Your task to perform on an android device: Play the last video I watched on Youtube Image 0: 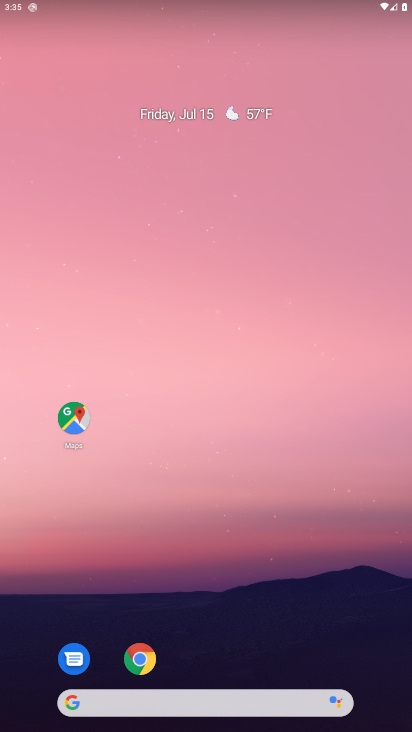
Step 0: drag from (14, 697) to (168, 130)
Your task to perform on an android device: Play the last video I watched on Youtube Image 1: 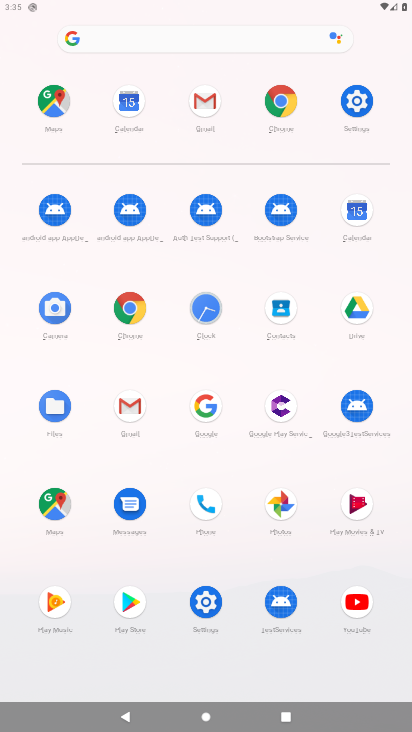
Step 1: click (354, 600)
Your task to perform on an android device: Play the last video I watched on Youtube Image 2: 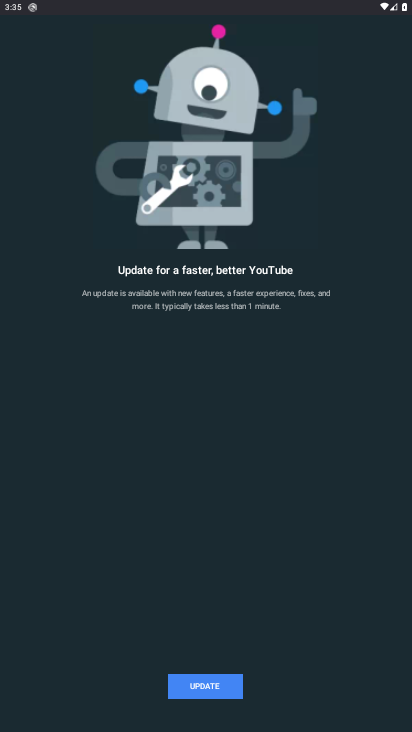
Step 2: click (195, 676)
Your task to perform on an android device: Play the last video I watched on Youtube Image 3: 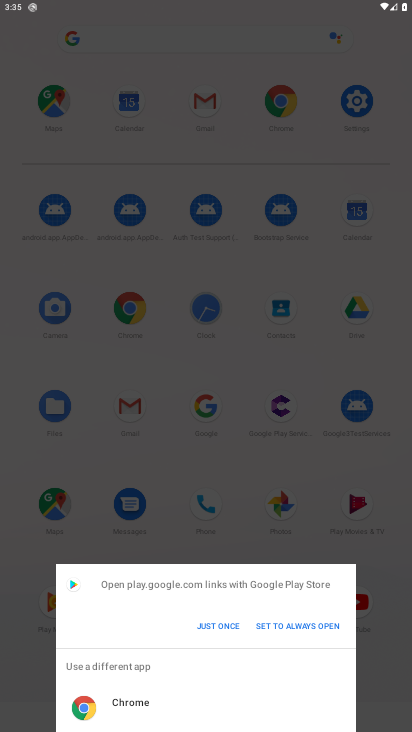
Step 3: click (227, 624)
Your task to perform on an android device: Play the last video I watched on Youtube Image 4: 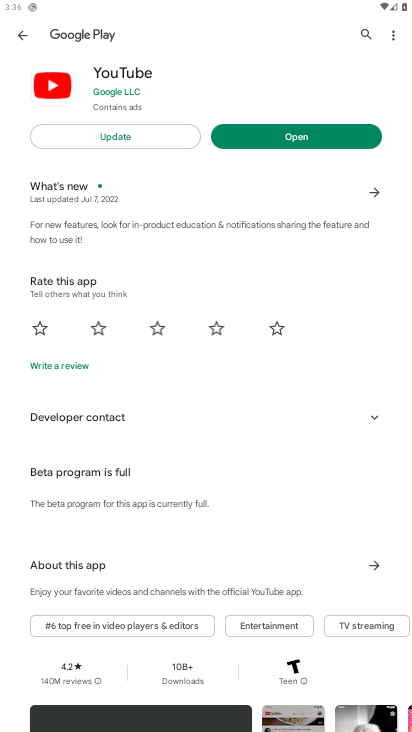
Step 4: click (332, 125)
Your task to perform on an android device: Play the last video I watched on Youtube Image 5: 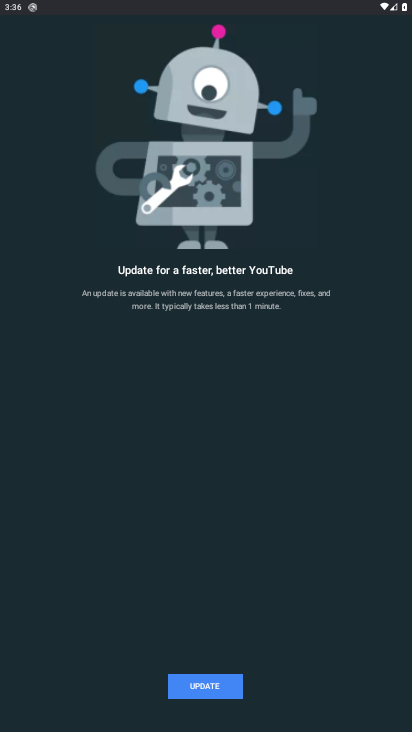
Step 5: task complete